Your task to perform on an android device: make emails show in primary in the gmail app Image 0: 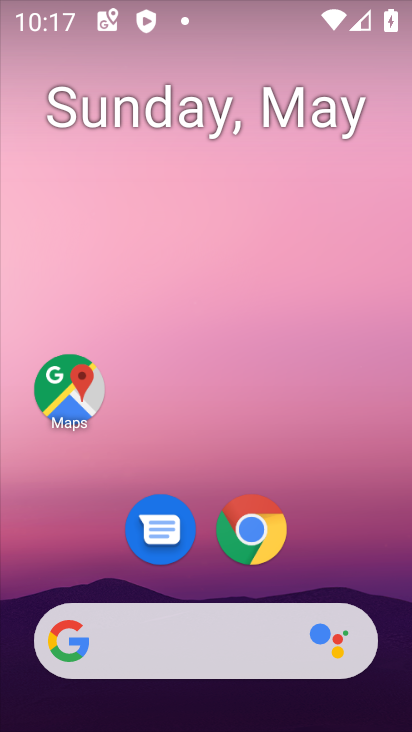
Step 0: drag from (238, 610) to (267, 4)
Your task to perform on an android device: make emails show in primary in the gmail app Image 1: 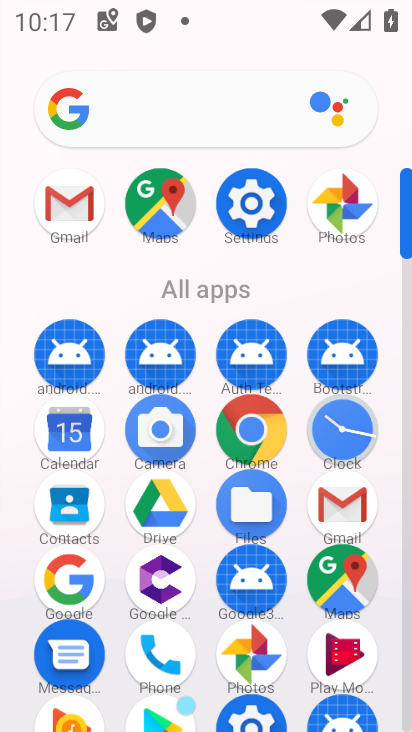
Step 1: click (353, 522)
Your task to perform on an android device: make emails show in primary in the gmail app Image 2: 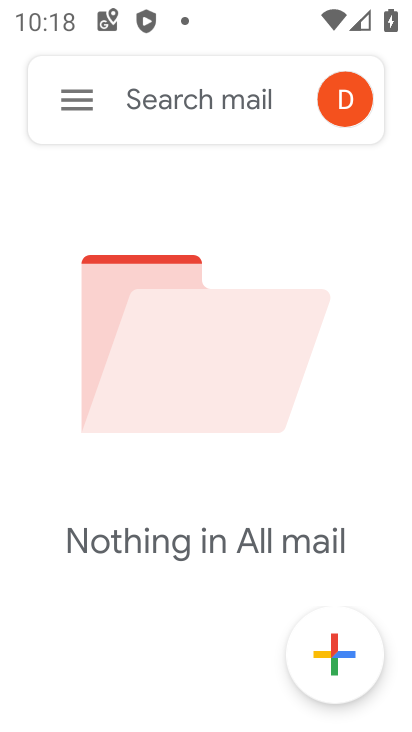
Step 2: click (69, 117)
Your task to perform on an android device: make emails show in primary in the gmail app Image 3: 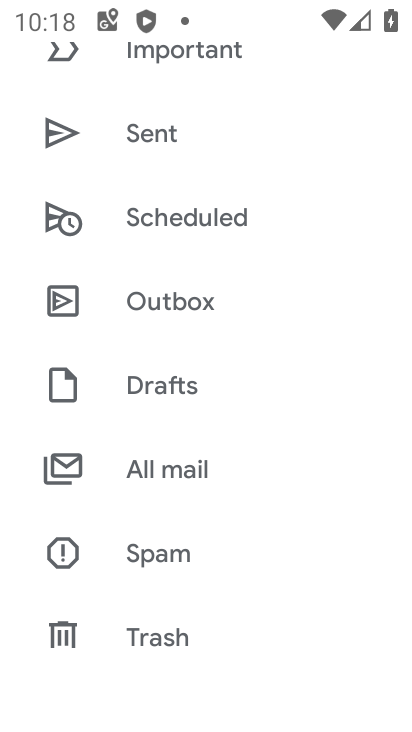
Step 3: drag from (158, 578) to (150, 51)
Your task to perform on an android device: make emails show in primary in the gmail app Image 4: 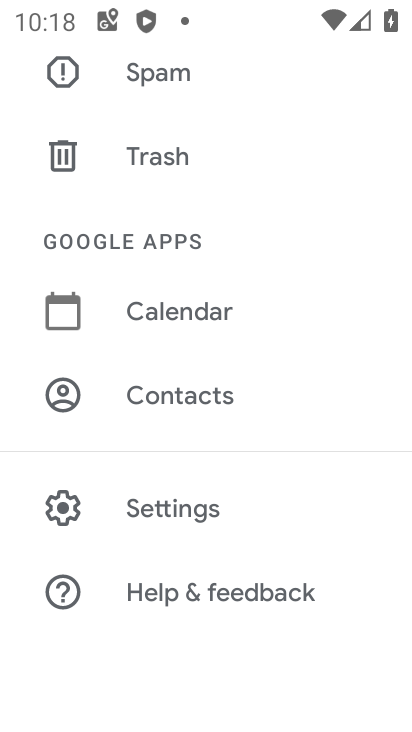
Step 4: click (159, 532)
Your task to perform on an android device: make emails show in primary in the gmail app Image 5: 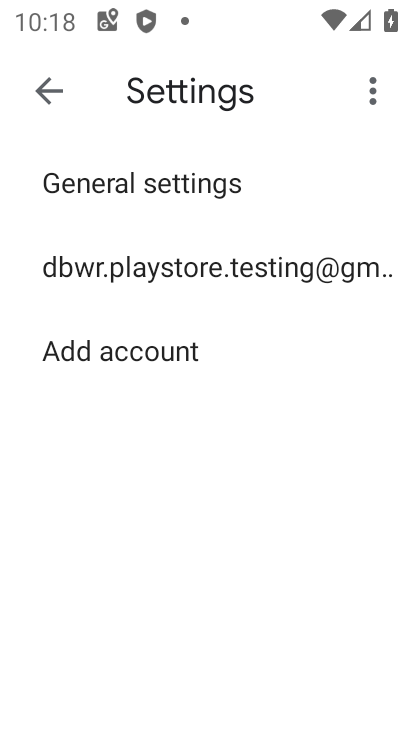
Step 5: click (159, 259)
Your task to perform on an android device: make emails show in primary in the gmail app Image 6: 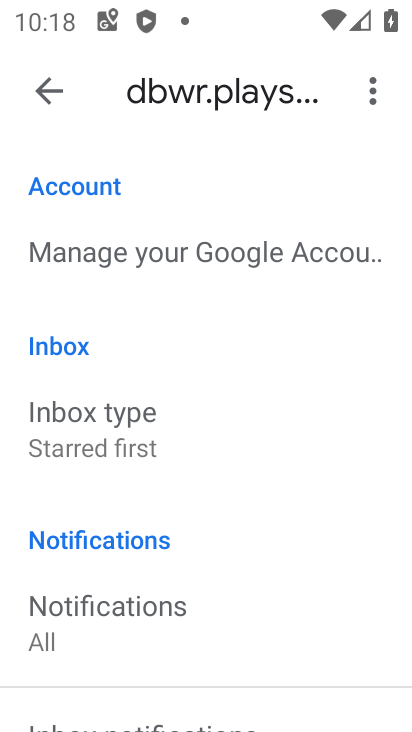
Step 6: click (120, 423)
Your task to perform on an android device: make emails show in primary in the gmail app Image 7: 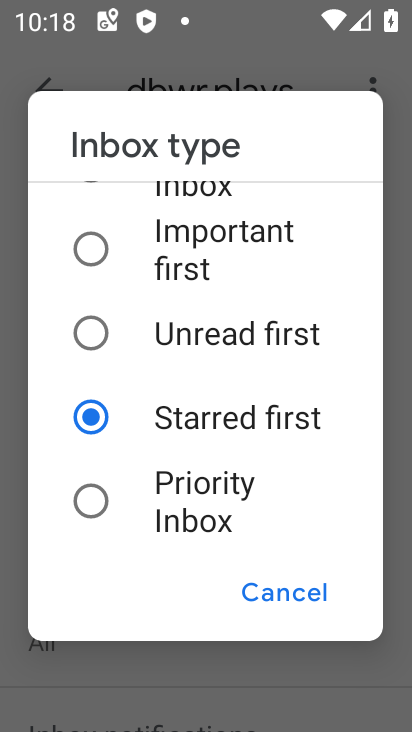
Step 7: drag from (175, 215) to (177, 668)
Your task to perform on an android device: make emails show in primary in the gmail app Image 8: 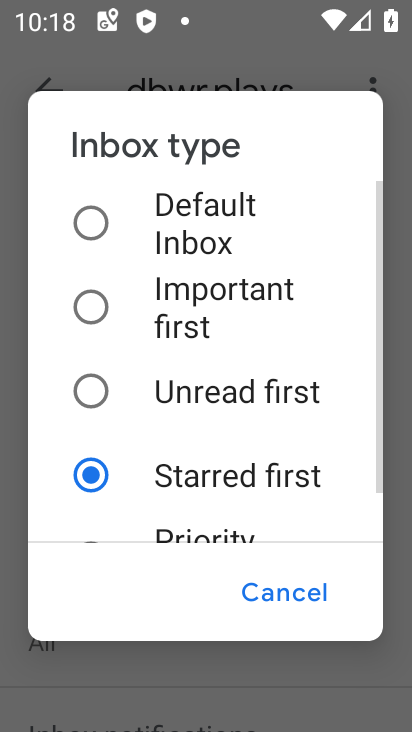
Step 8: click (191, 229)
Your task to perform on an android device: make emails show in primary in the gmail app Image 9: 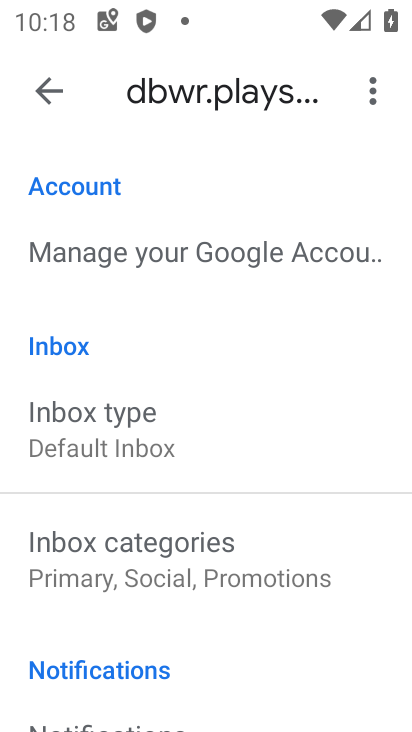
Step 9: click (218, 564)
Your task to perform on an android device: make emails show in primary in the gmail app Image 10: 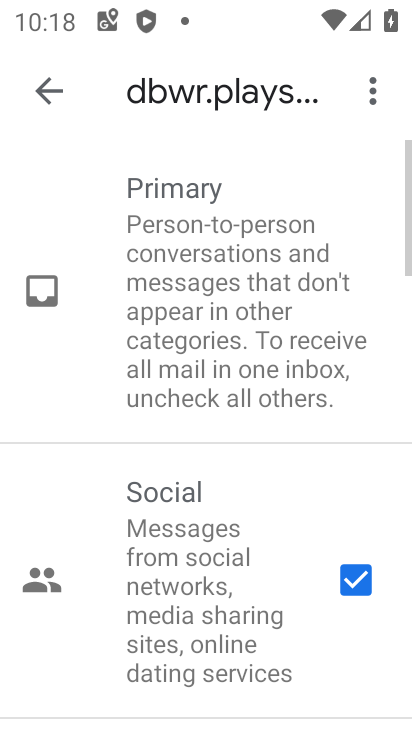
Step 10: click (373, 579)
Your task to perform on an android device: make emails show in primary in the gmail app Image 11: 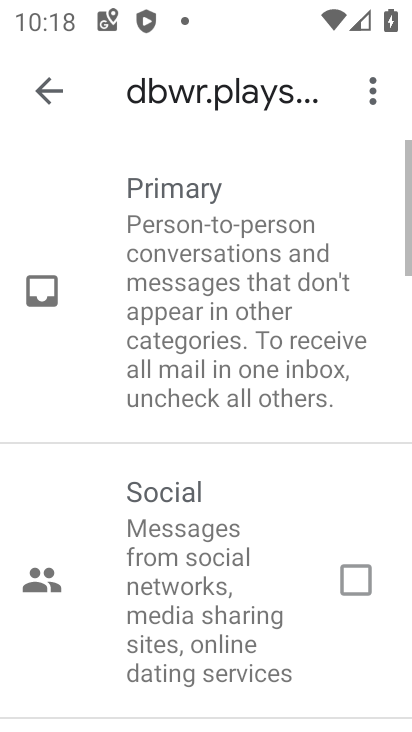
Step 11: drag from (329, 572) to (309, 54)
Your task to perform on an android device: make emails show in primary in the gmail app Image 12: 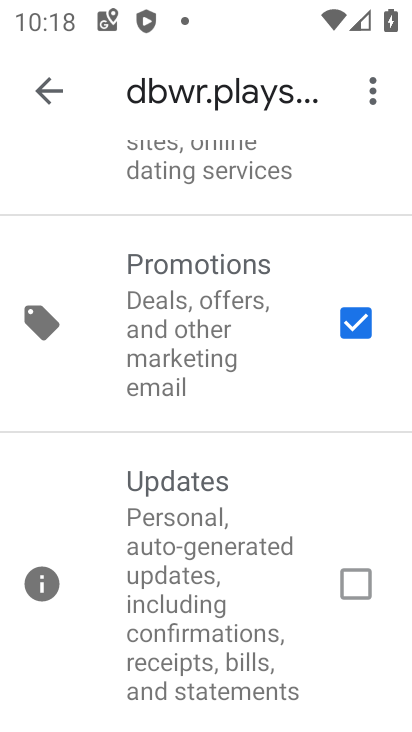
Step 12: click (324, 327)
Your task to perform on an android device: make emails show in primary in the gmail app Image 13: 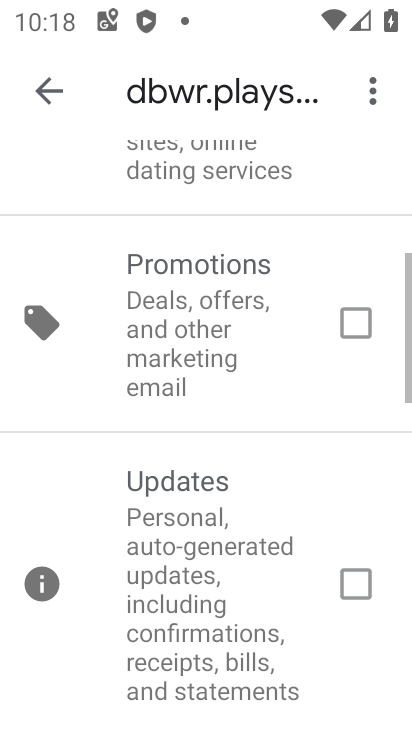
Step 13: task complete